Your task to perform on an android device: What's on the menu at Domino's? Image 0: 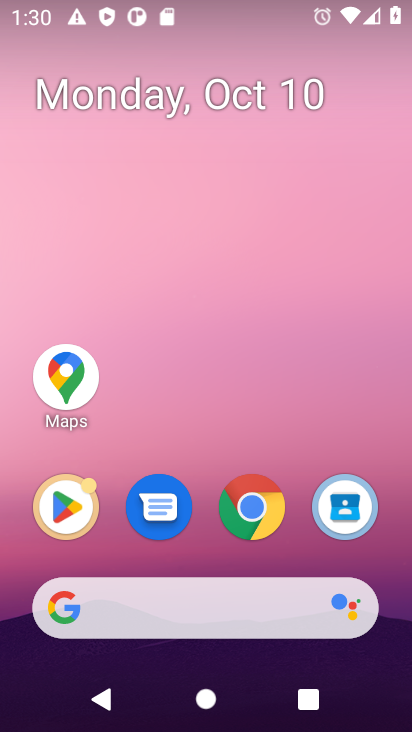
Step 0: press home button
Your task to perform on an android device: What's on the menu at Domino's? Image 1: 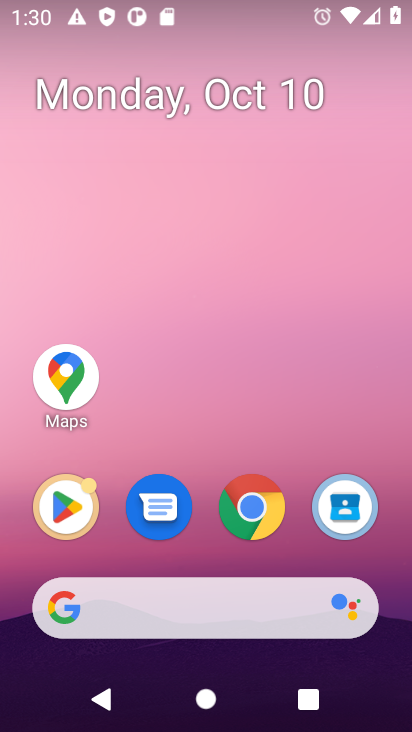
Step 1: click (274, 603)
Your task to perform on an android device: What's on the menu at Domino's? Image 2: 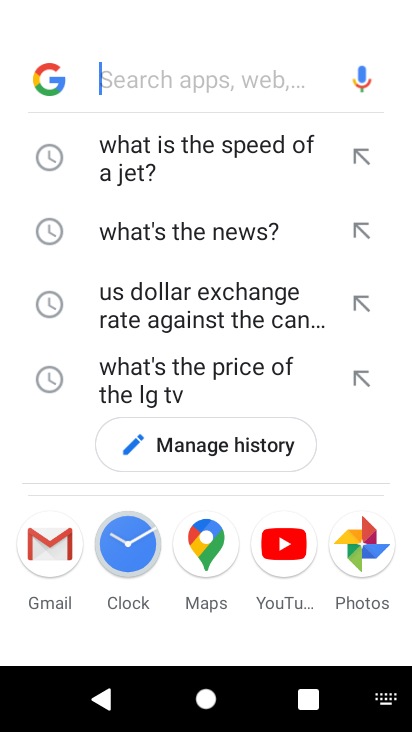
Step 2: type "What's on the menu at Domino's?"
Your task to perform on an android device: What's on the menu at Domino's? Image 3: 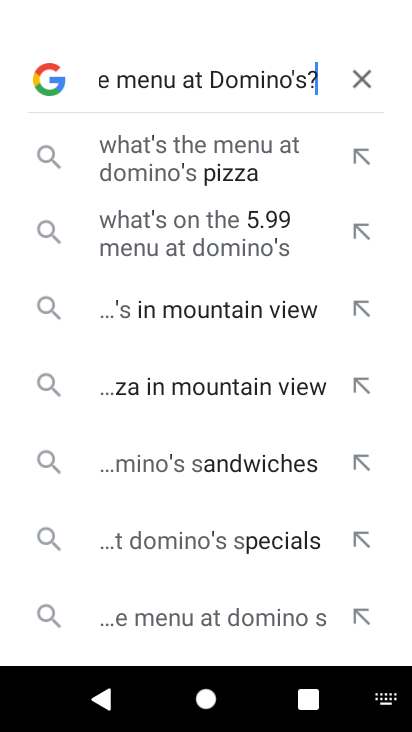
Step 3: press enter
Your task to perform on an android device: What's on the menu at Domino's? Image 4: 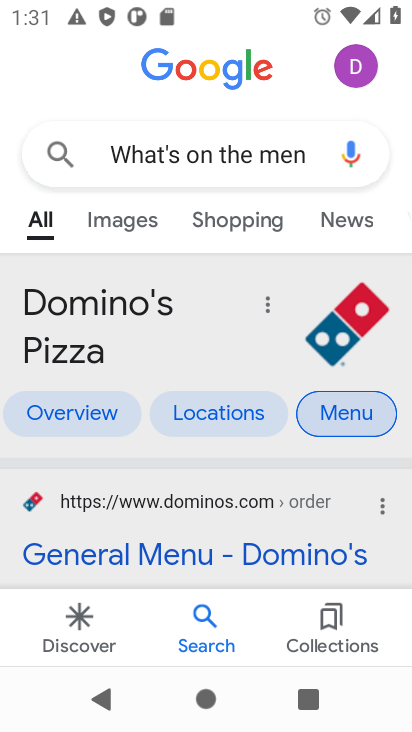
Step 4: drag from (349, 530) to (339, 301)
Your task to perform on an android device: What's on the menu at Domino's? Image 5: 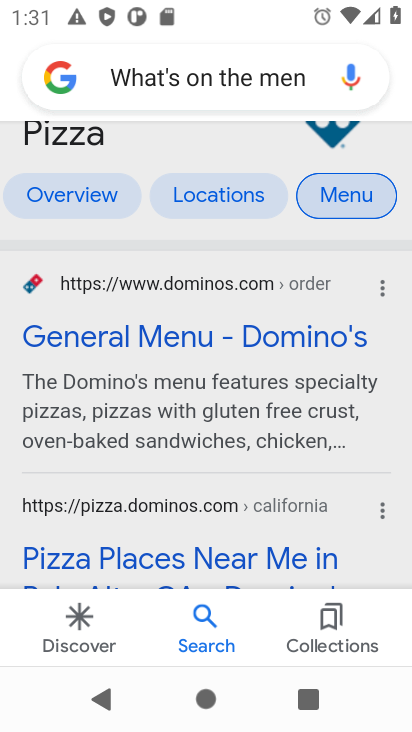
Step 5: click (344, 186)
Your task to perform on an android device: What's on the menu at Domino's? Image 6: 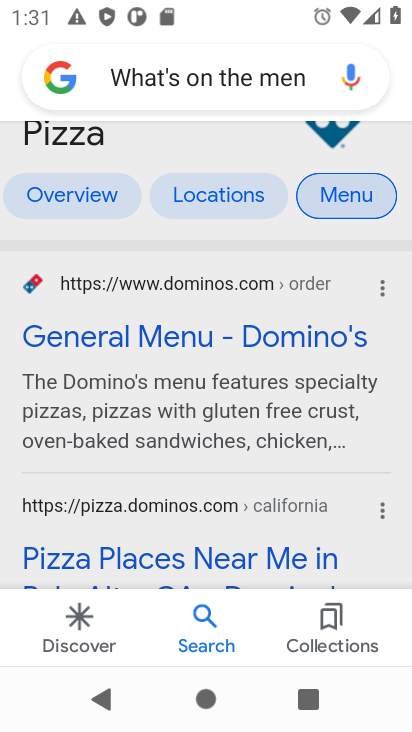
Step 6: drag from (284, 479) to (281, 371)
Your task to perform on an android device: What's on the menu at Domino's? Image 7: 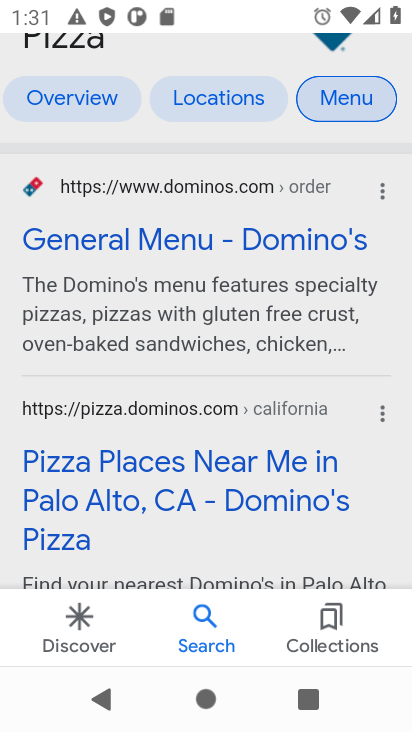
Step 7: click (311, 229)
Your task to perform on an android device: What's on the menu at Domino's? Image 8: 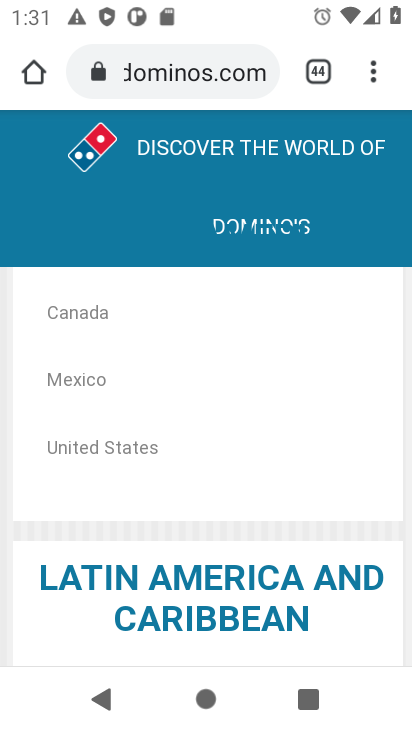
Step 8: task complete